Your task to perform on an android device: Go to Amazon Image 0: 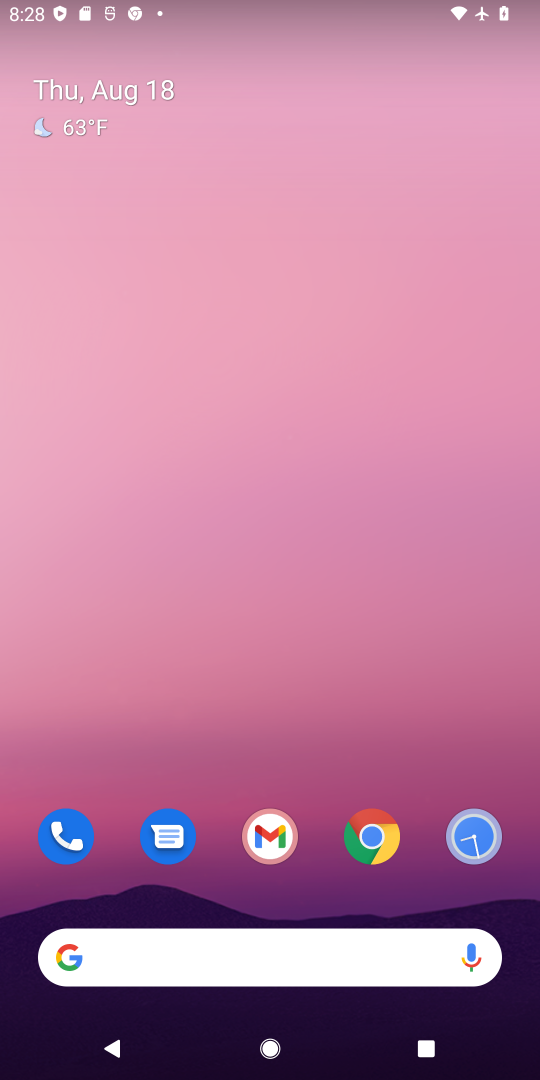
Step 0: drag from (320, 754) to (331, 6)
Your task to perform on an android device: Go to Amazon Image 1: 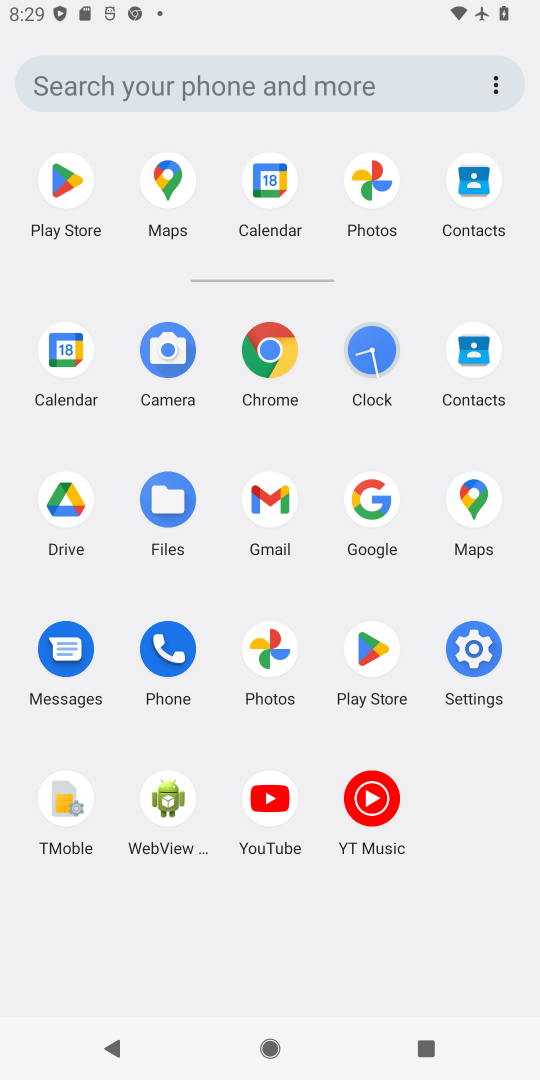
Step 1: click (258, 345)
Your task to perform on an android device: Go to Amazon Image 2: 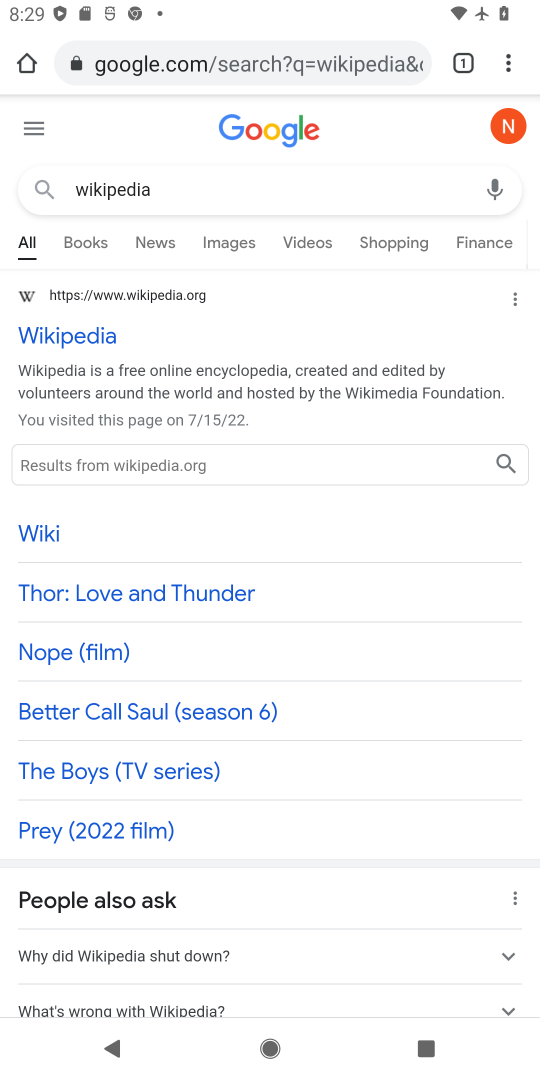
Step 2: click (282, 56)
Your task to perform on an android device: Go to Amazon Image 3: 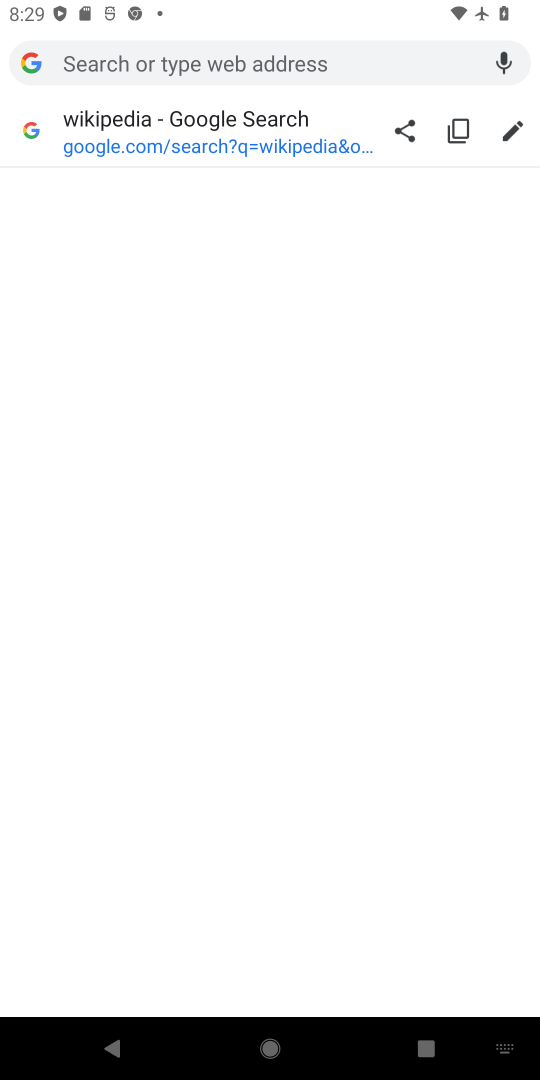
Step 3: type "amazon"
Your task to perform on an android device: Go to Amazon Image 4: 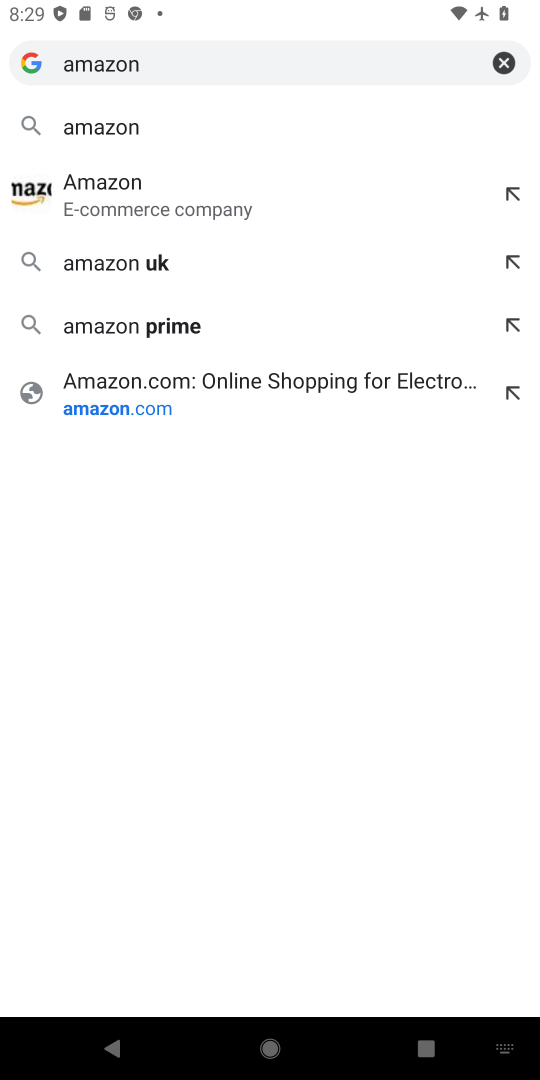
Step 4: click (173, 197)
Your task to perform on an android device: Go to Amazon Image 5: 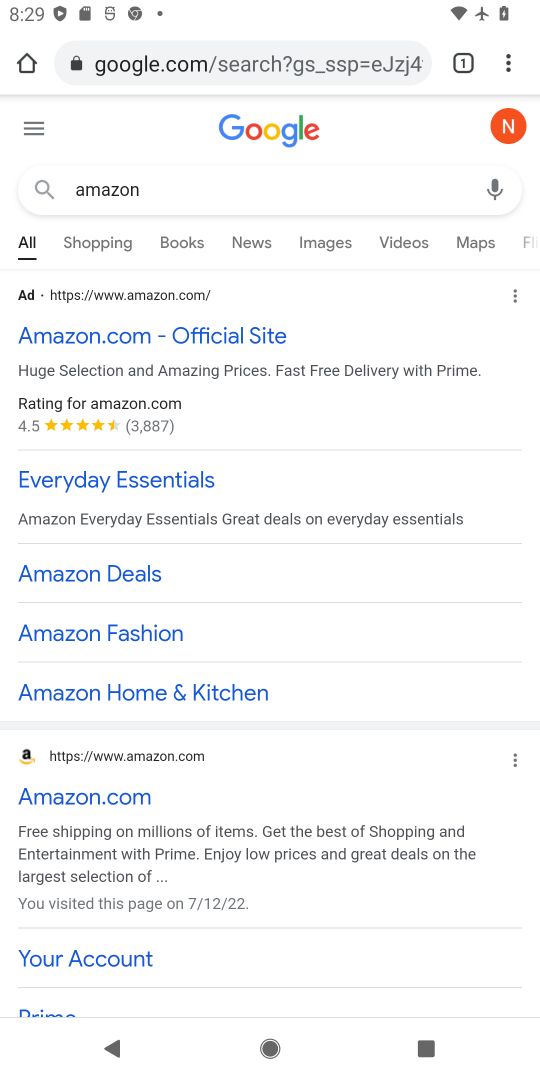
Step 5: click (119, 780)
Your task to perform on an android device: Go to Amazon Image 6: 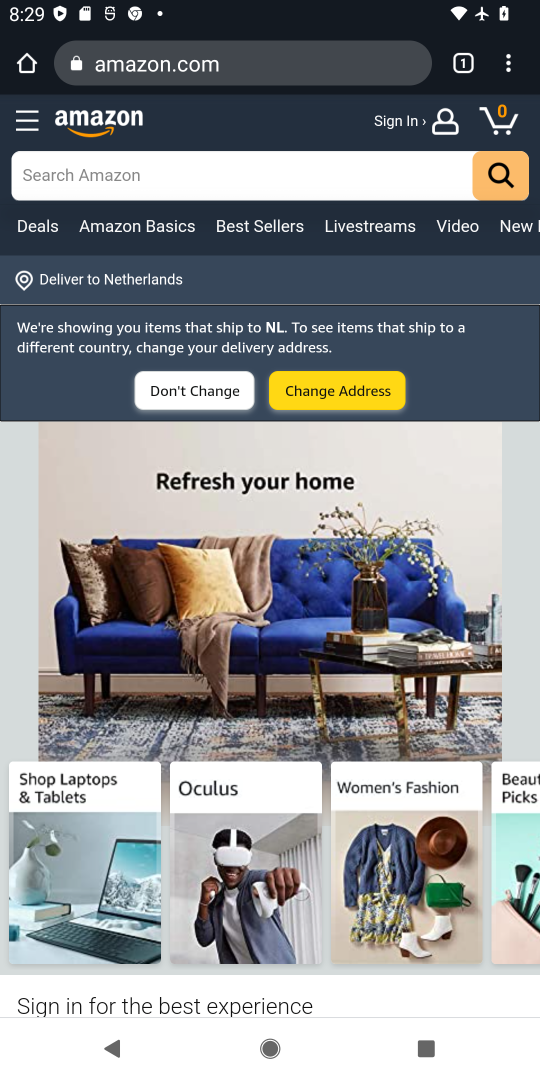
Step 6: task complete